Your task to perform on an android device: turn off location Image 0: 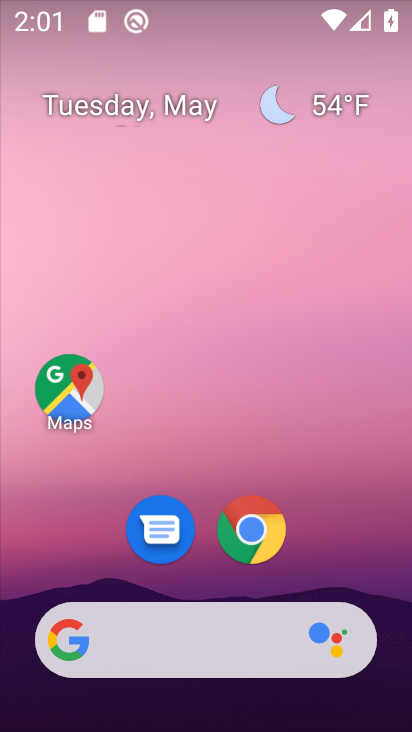
Step 0: drag from (303, 537) to (279, 235)
Your task to perform on an android device: turn off location Image 1: 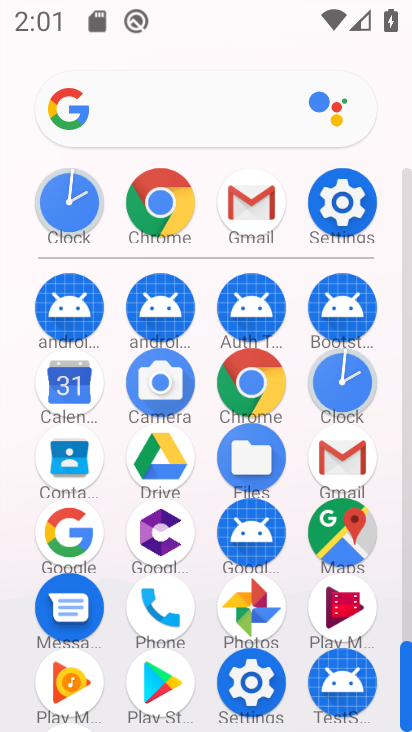
Step 1: click (347, 195)
Your task to perform on an android device: turn off location Image 2: 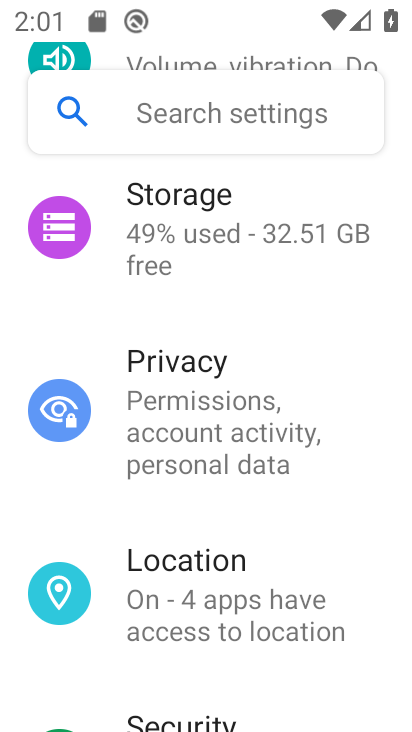
Step 2: click (213, 627)
Your task to perform on an android device: turn off location Image 3: 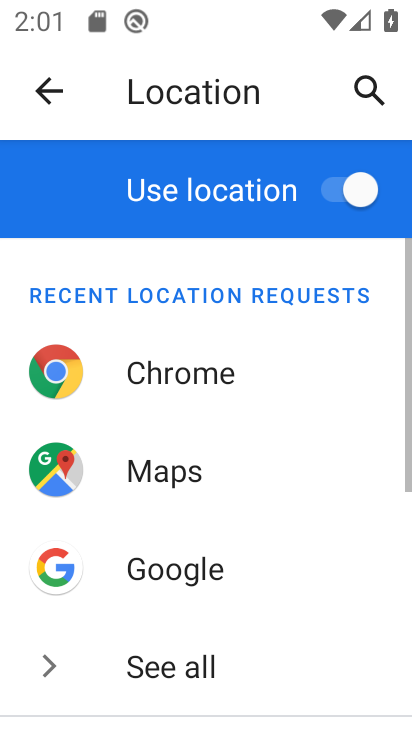
Step 3: click (330, 181)
Your task to perform on an android device: turn off location Image 4: 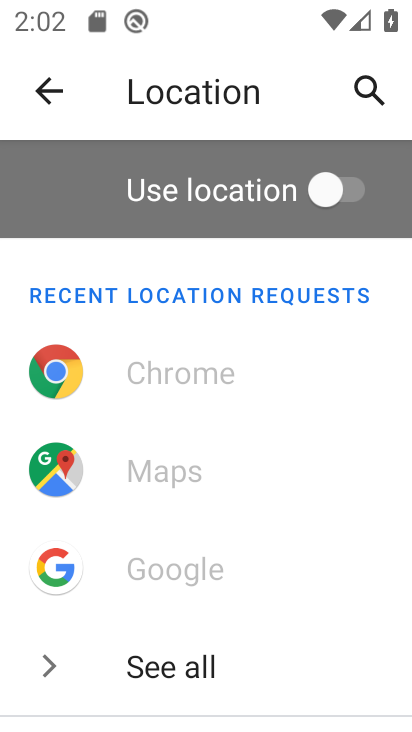
Step 4: task complete